Your task to perform on an android device: Clear the cart on target. Search for macbook pro on target, select the first entry, add it to the cart, then select checkout. Image 0: 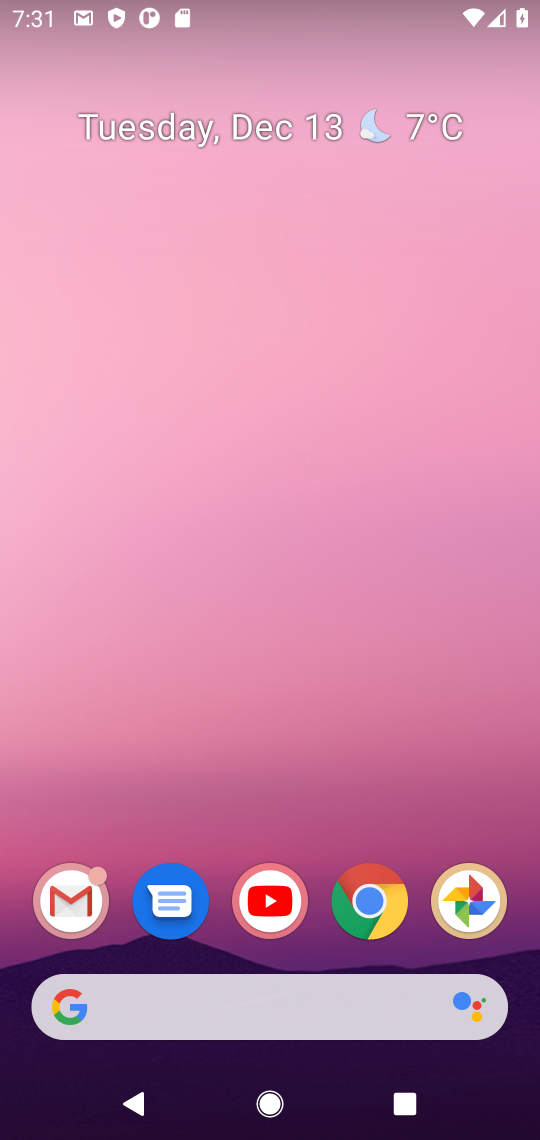
Step 0: click (364, 899)
Your task to perform on an android device: Clear the cart on target. Search for macbook pro on target, select the first entry, add it to the cart, then select checkout. Image 1: 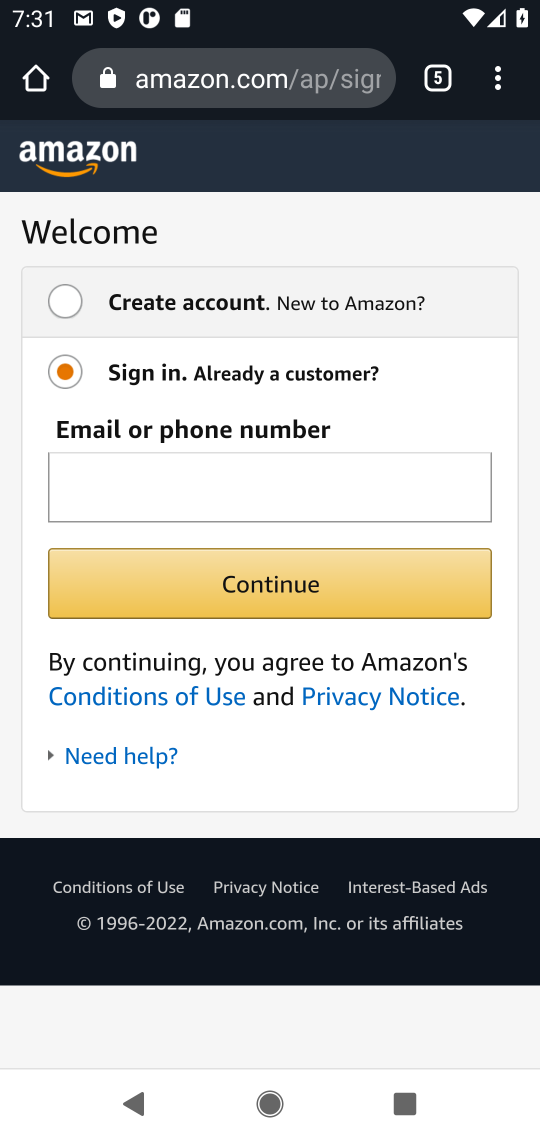
Step 1: click (439, 79)
Your task to perform on an android device: Clear the cart on target. Search for macbook pro on target, select the first entry, add it to the cart, then select checkout. Image 2: 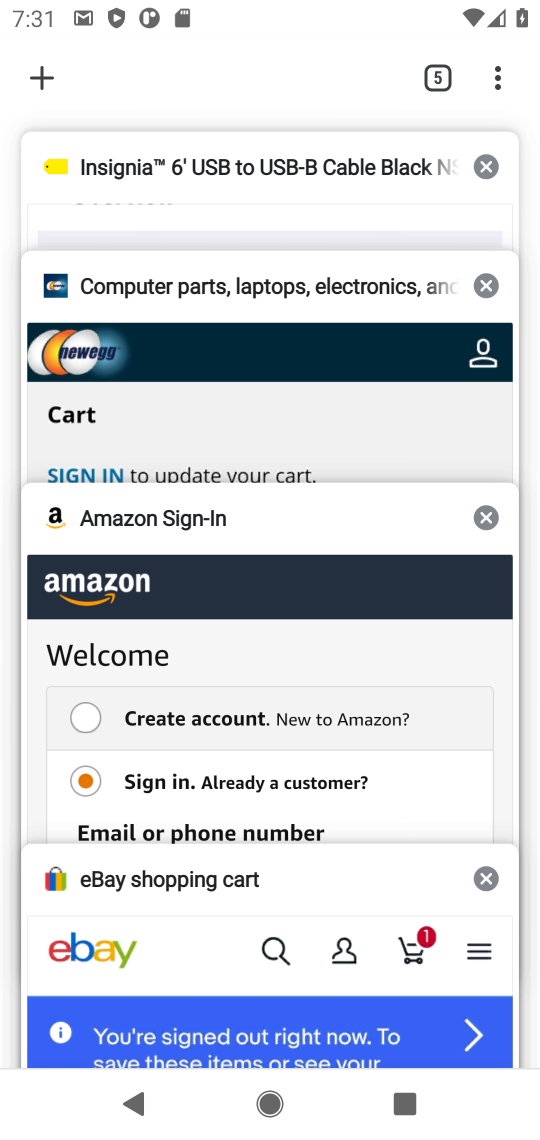
Step 2: click (433, 77)
Your task to perform on an android device: Clear the cart on target. Search for macbook pro on target, select the first entry, add it to the cart, then select checkout. Image 3: 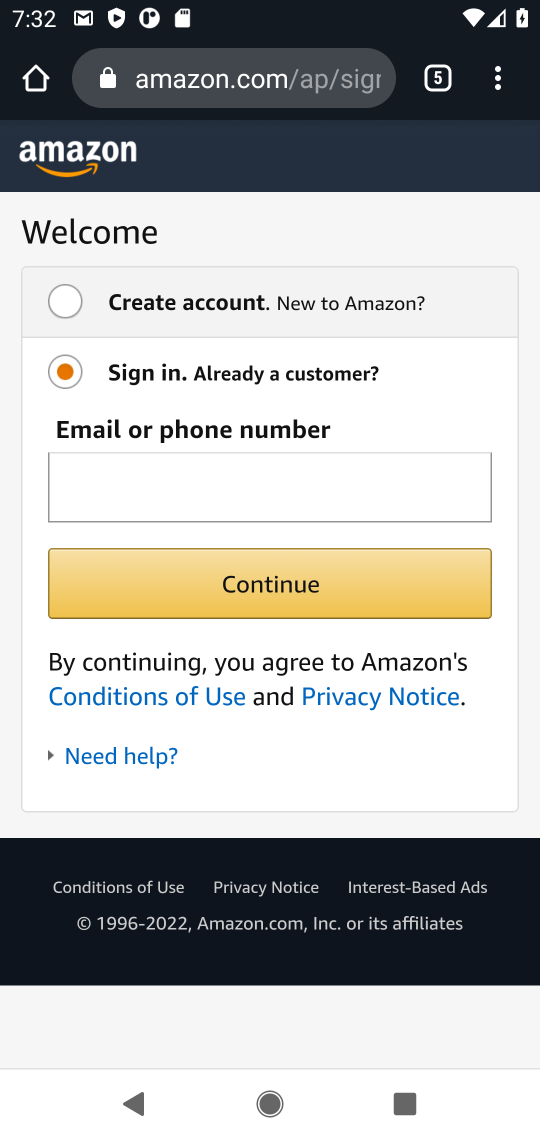
Step 3: click (443, 70)
Your task to perform on an android device: Clear the cart on target. Search for macbook pro on target, select the first entry, add it to the cart, then select checkout. Image 4: 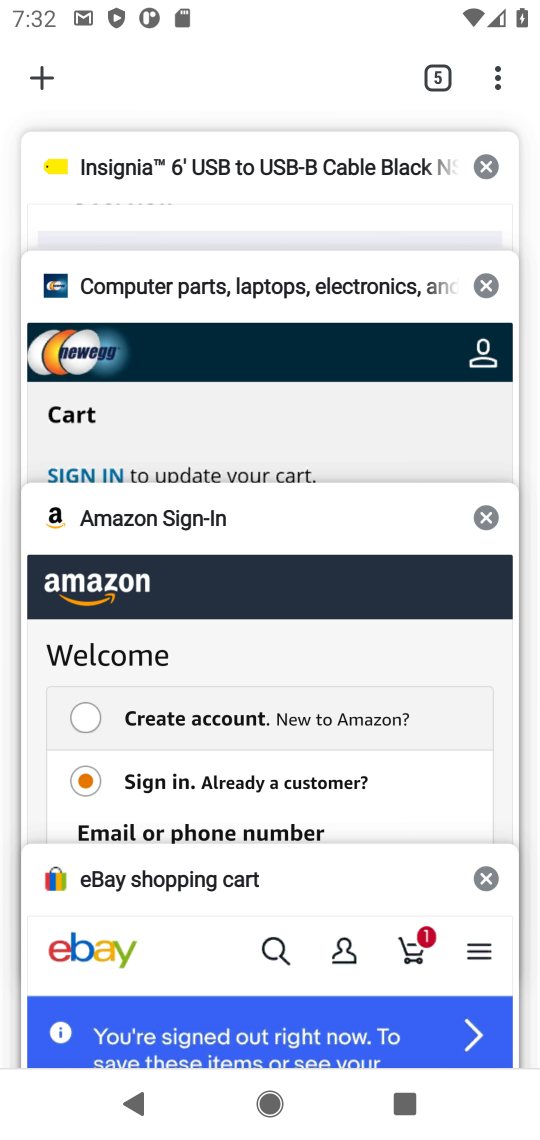
Step 4: click (44, 75)
Your task to perform on an android device: Clear the cart on target. Search for macbook pro on target, select the first entry, add it to the cart, then select checkout. Image 5: 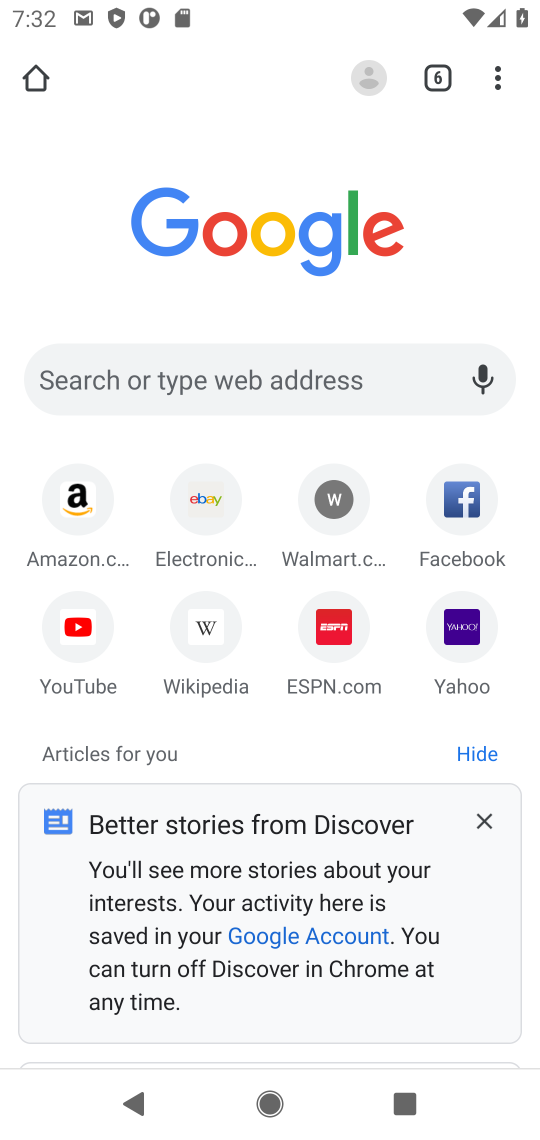
Step 5: click (285, 375)
Your task to perform on an android device: Clear the cart on target. Search for macbook pro on target, select the first entry, add it to the cart, then select checkout. Image 6: 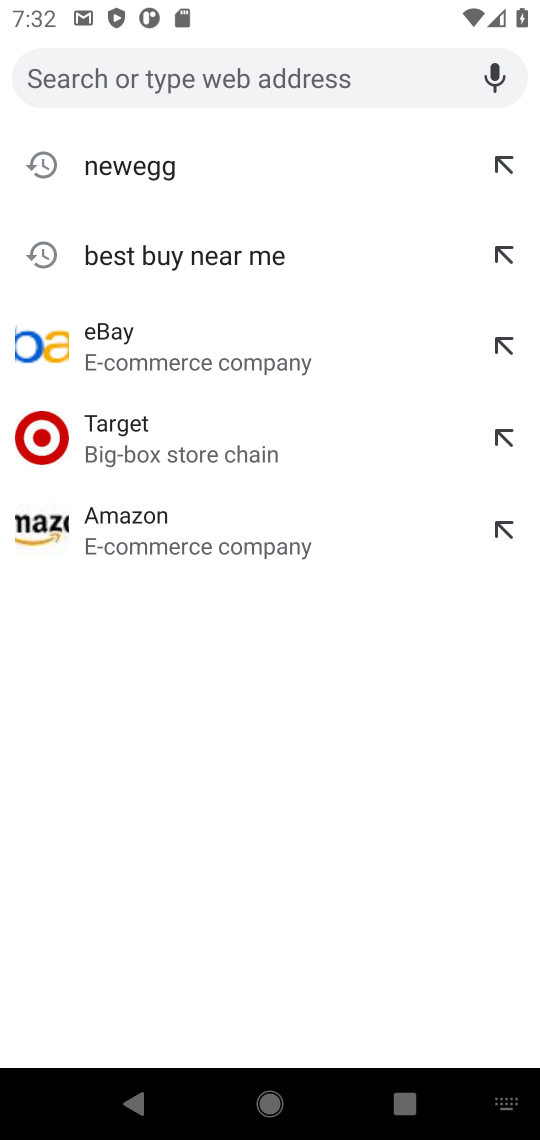
Step 6: click (223, 449)
Your task to perform on an android device: Clear the cart on target. Search for macbook pro on target, select the first entry, add it to the cart, then select checkout. Image 7: 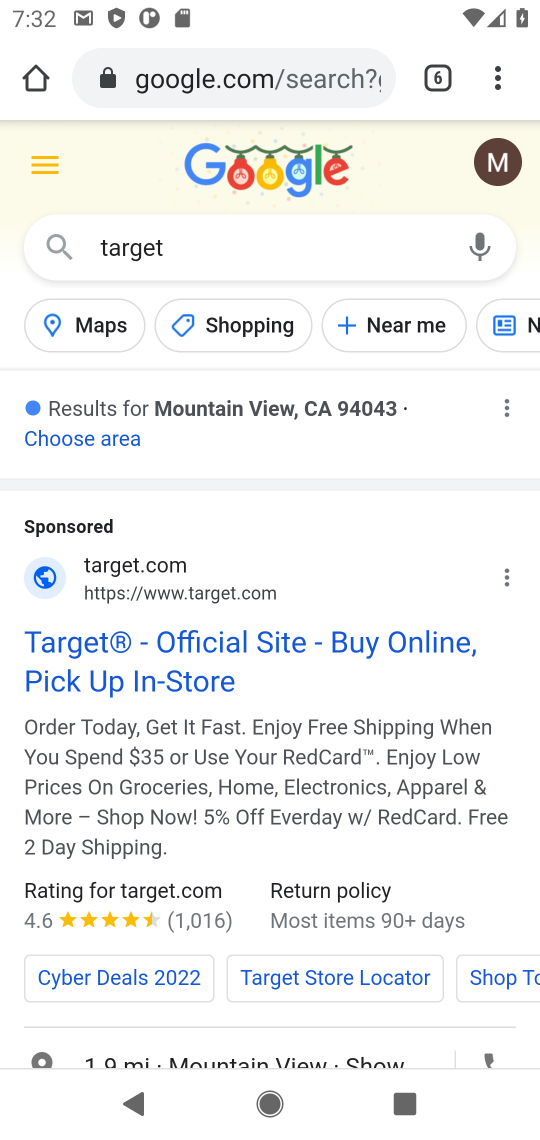
Step 7: click (189, 651)
Your task to perform on an android device: Clear the cart on target. Search for macbook pro on target, select the first entry, add it to the cart, then select checkout. Image 8: 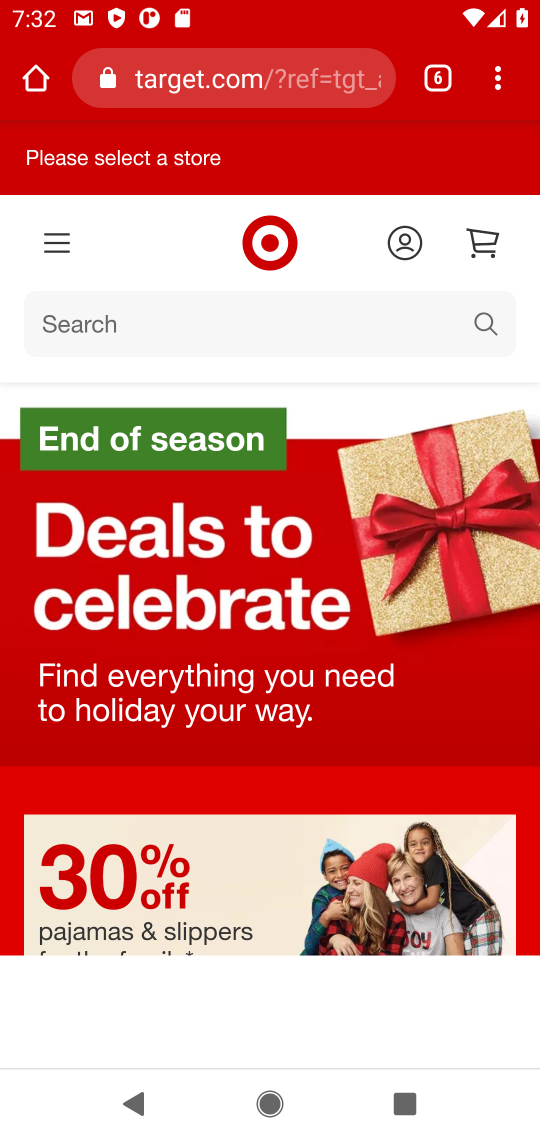
Step 8: click (298, 325)
Your task to perform on an android device: Clear the cart on target. Search for macbook pro on target, select the first entry, add it to the cart, then select checkout. Image 9: 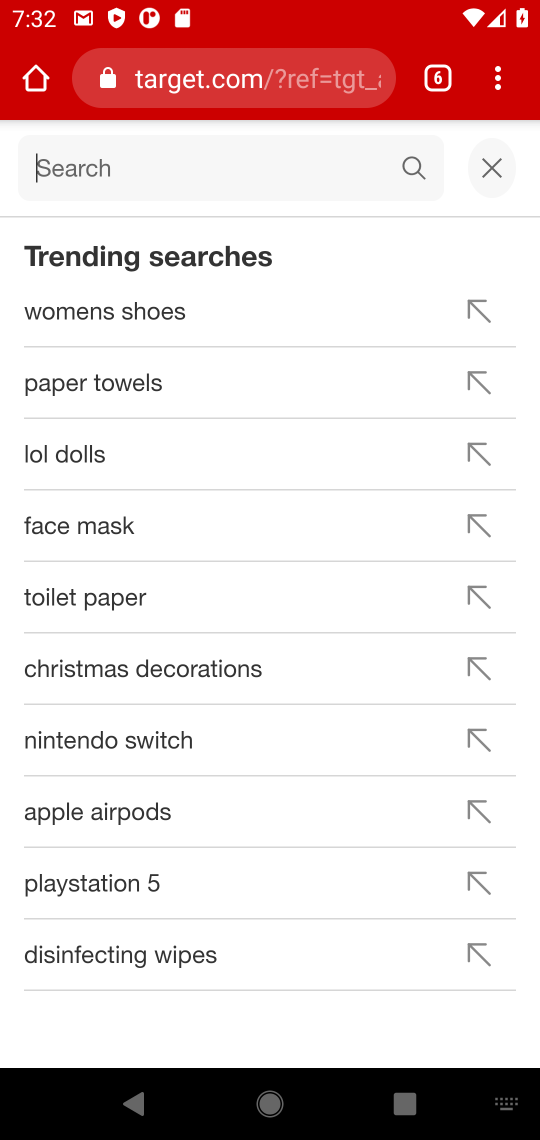
Step 9: type "macbook pro"
Your task to perform on an android device: Clear the cart on target. Search for macbook pro on target, select the first entry, add it to the cart, then select checkout. Image 10: 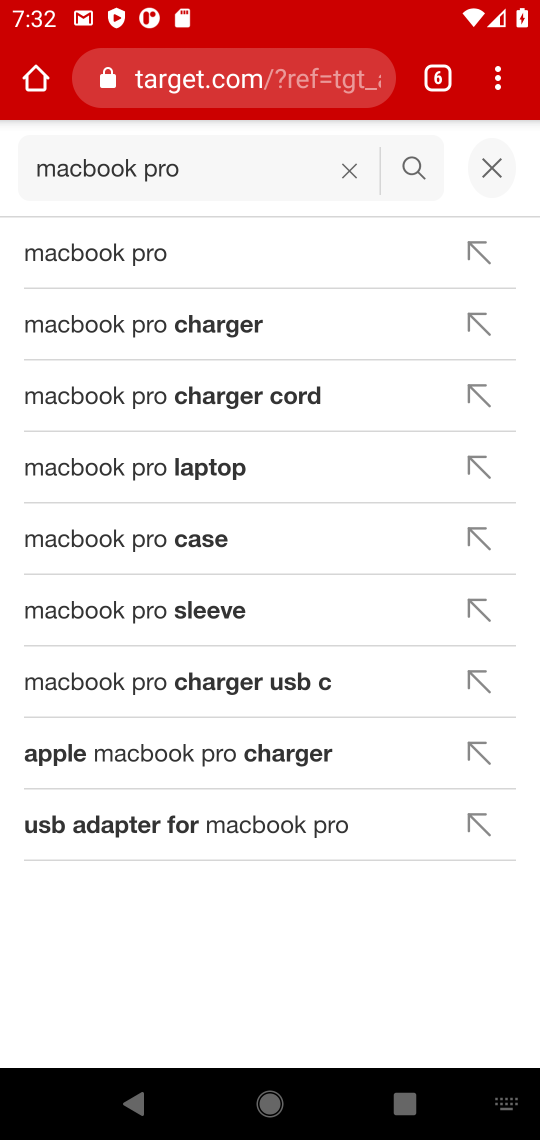
Step 10: click (68, 251)
Your task to perform on an android device: Clear the cart on target. Search for macbook pro on target, select the first entry, add it to the cart, then select checkout. Image 11: 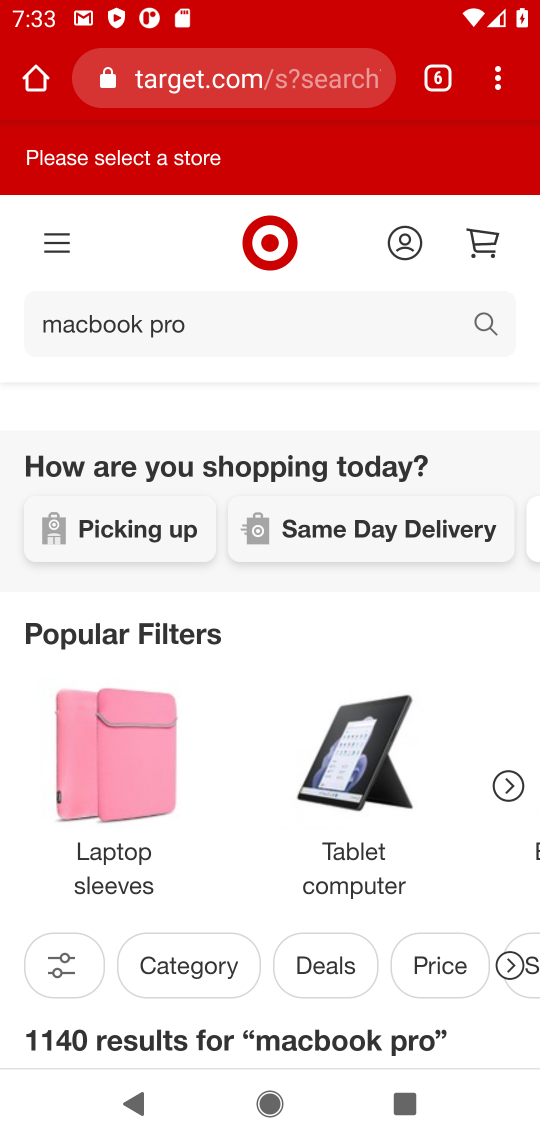
Step 11: drag from (200, 907) to (279, 347)
Your task to perform on an android device: Clear the cart on target. Search for macbook pro on target, select the first entry, add it to the cart, then select checkout. Image 12: 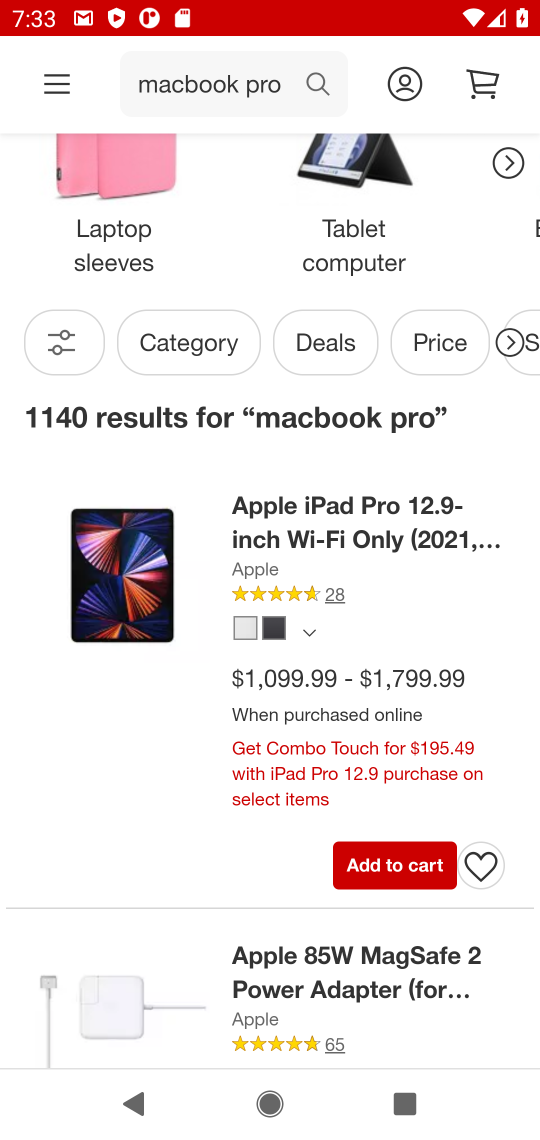
Step 12: drag from (240, 849) to (355, 248)
Your task to perform on an android device: Clear the cart on target. Search for macbook pro on target, select the first entry, add it to the cart, then select checkout. Image 13: 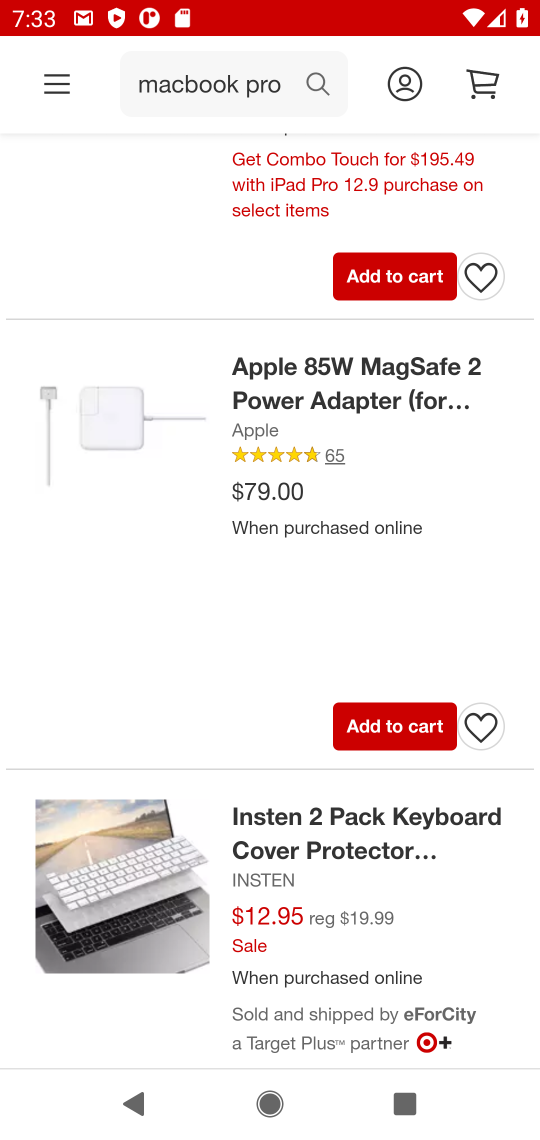
Step 13: drag from (248, 699) to (361, 139)
Your task to perform on an android device: Clear the cart on target. Search for macbook pro on target, select the first entry, add it to the cart, then select checkout. Image 14: 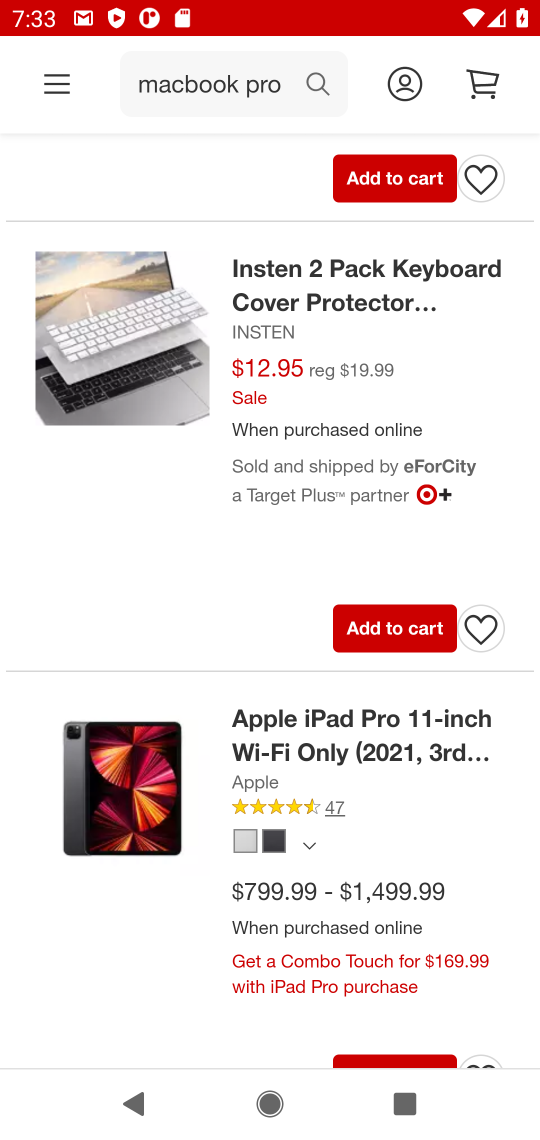
Step 14: drag from (209, 885) to (299, 317)
Your task to perform on an android device: Clear the cart on target. Search for macbook pro on target, select the first entry, add it to the cart, then select checkout. Image 15: 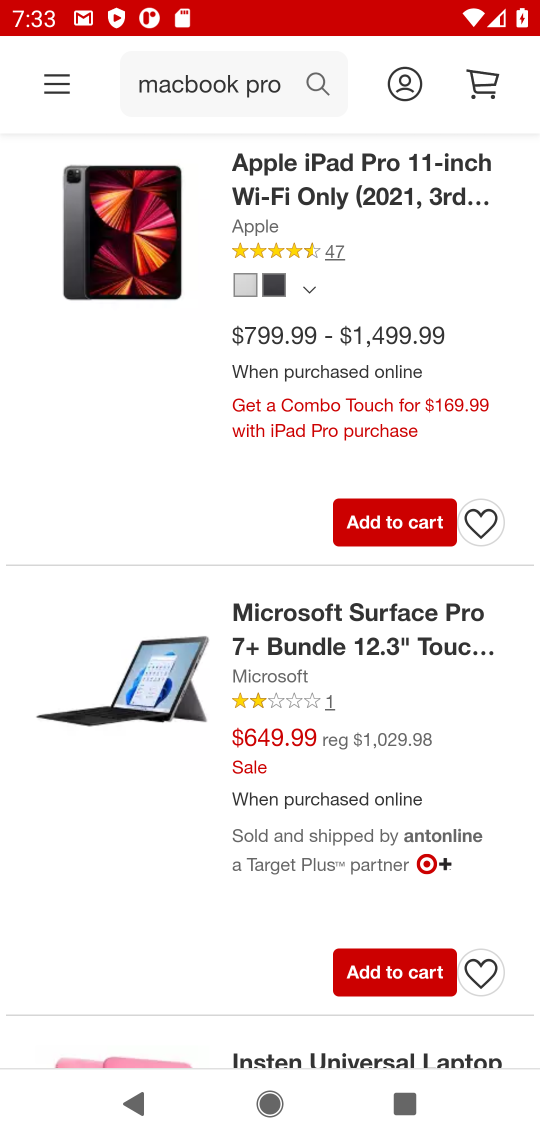
Step 15: drag from (218, 917) to (275, 379)
Your task to perform on an android device: Clear the cart on target. Search for macbook pro on target, select the first entry, add it to the cart, then select checkout. Image 16: 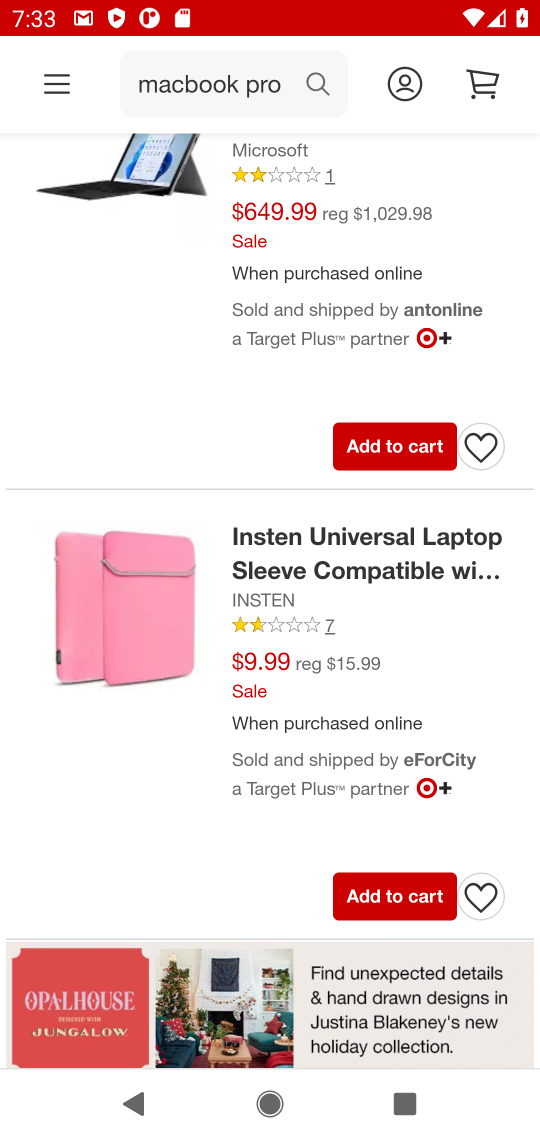
Step 16: drag from (176, 807) to (309, 295)
Your task to perform on an android device: Clear the cart on target. Search for macbook pro on target, select the first entry, add it to the cart, then select checkout. Image 17: 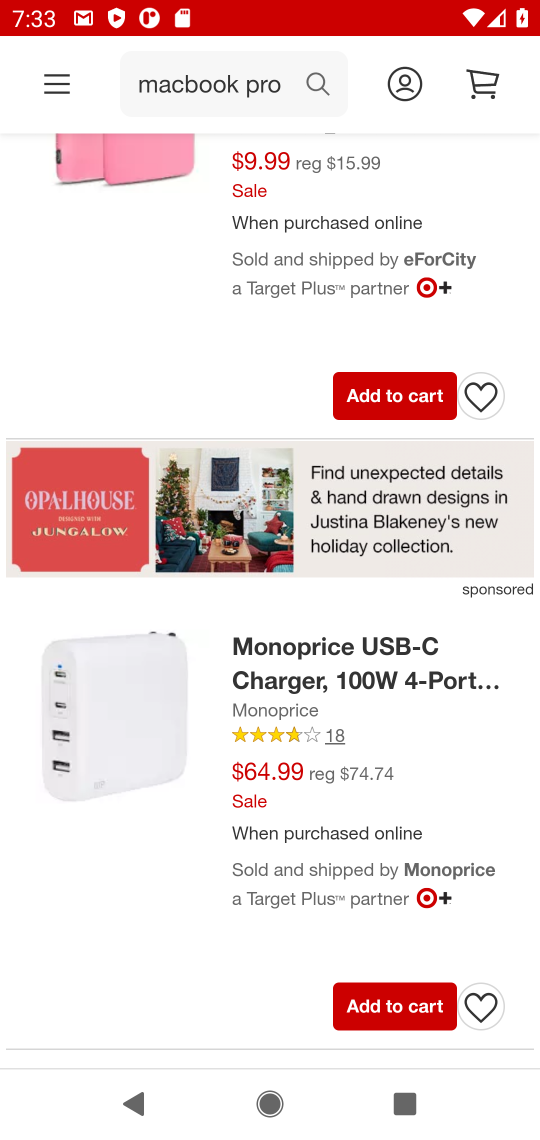
Step 17: drag from (126, 992) to (207, 432)
Your task to perform on an android device: Clear the cart on target. Search for macbook pro on target, select the first entry, add it to the cart, then select checkout. Image 18: 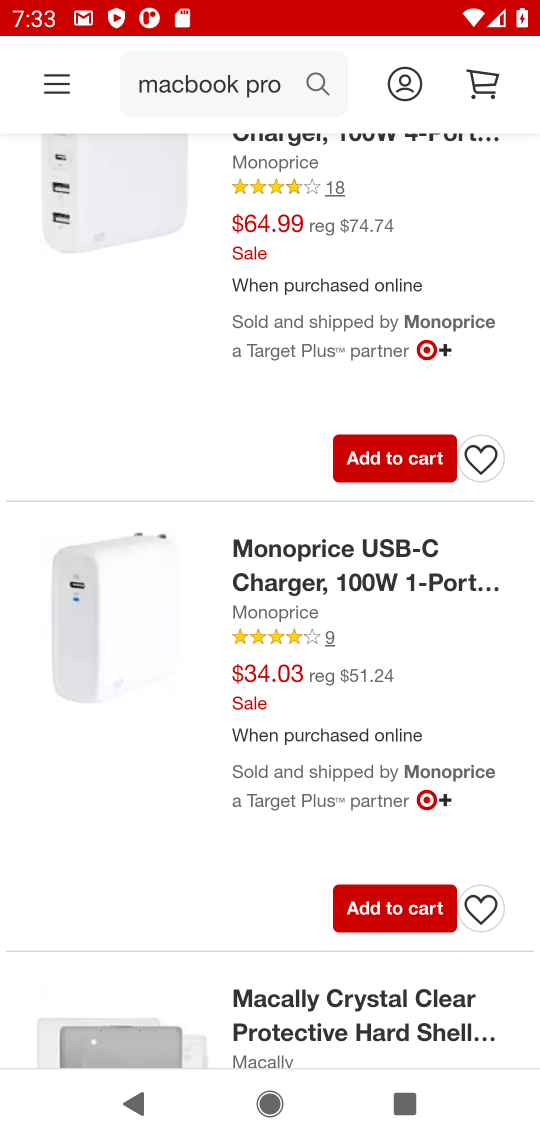
Step 18: drag from (136, 873) to (279, 150)
Your task to perform on an android device: Clear the cart on target. Search for macbook pro on target, select the first entry, add it to the cart, then select checkout. Image 19: 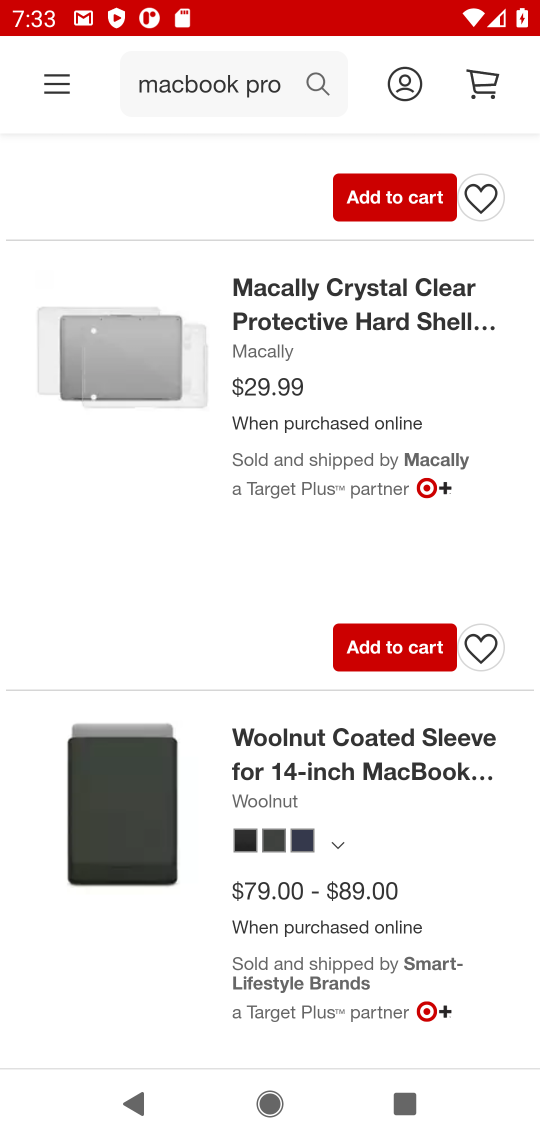
Step 19: drag from (192, 213) to (225, 1095)
Your task to perform on an android device: Clear the cart on target. Search for macbook pro on target, select the first entry, add it to the cart, then select checkout. Image 20: 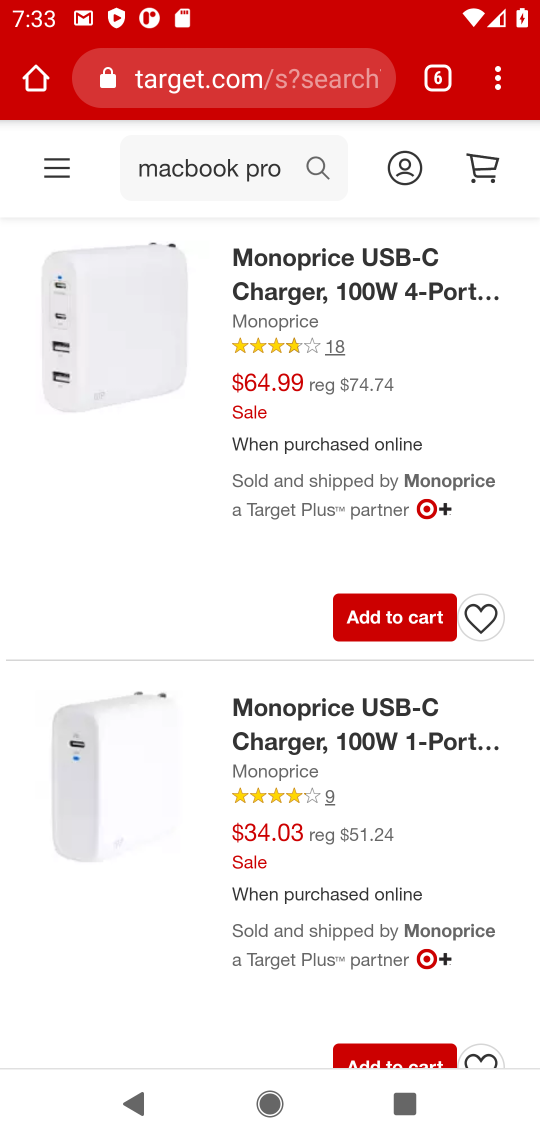
Step 20: click (259, 171)
Your task to perform on an android device: Clear the cart on target. Search for macbook pro on target, select the first entry, add it to the cart, then select checkout. Image 21: 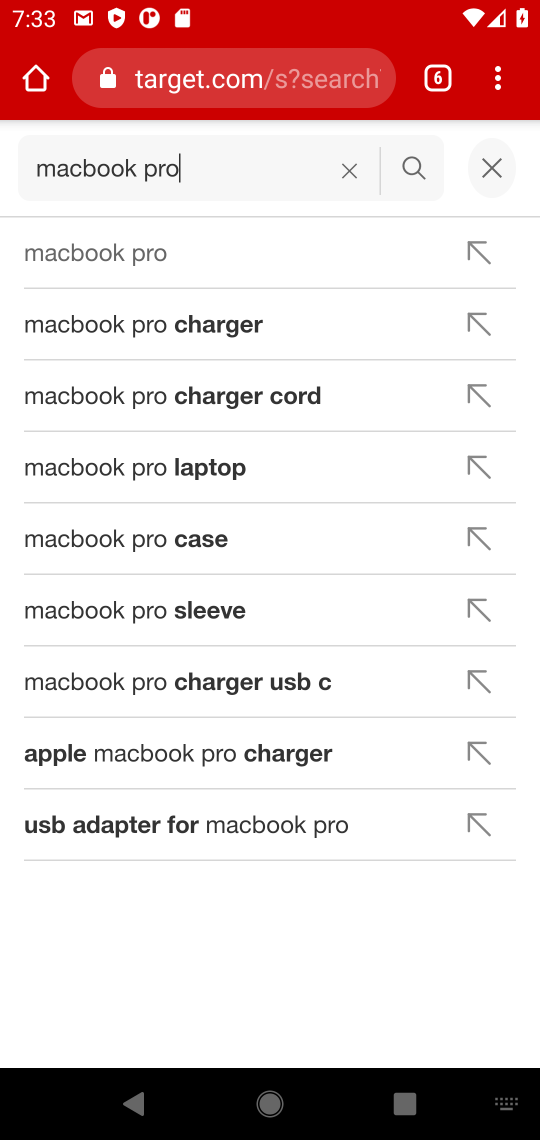
Step 21: click (115, 252)
Your task to perform on an android device: Clear the cart on target. Search for macbook pro on target, select the first entry, add it to the cart, then select checkout. Image 22: 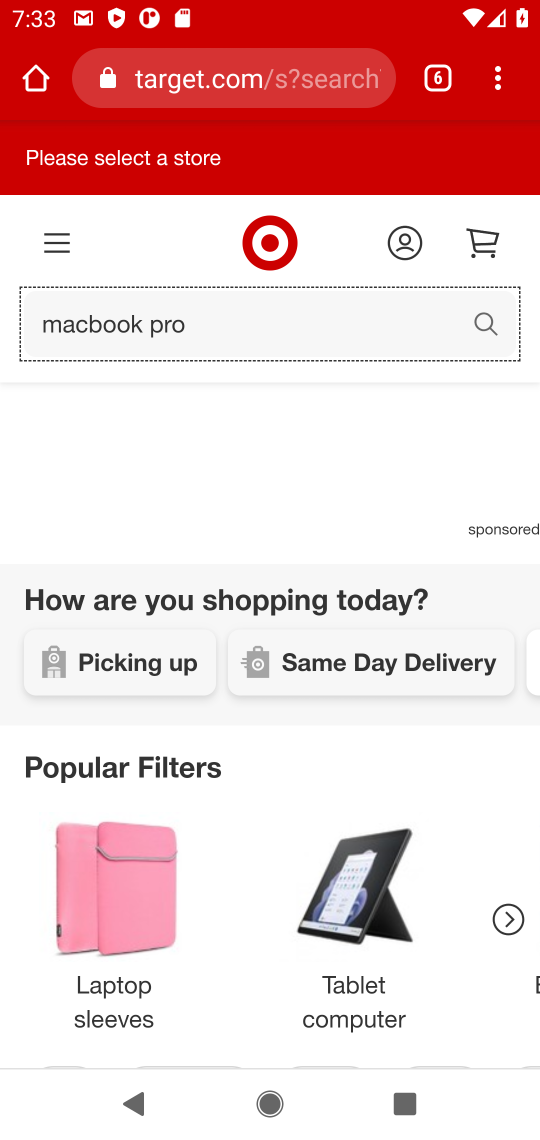
Step 22: drag from (368, 922) to (16, 984)
Your task to perform on an android device: Clear the cart on target. Search for macbook pro on target, select the first entry, add it to the cart, then select checkout. Image 23: 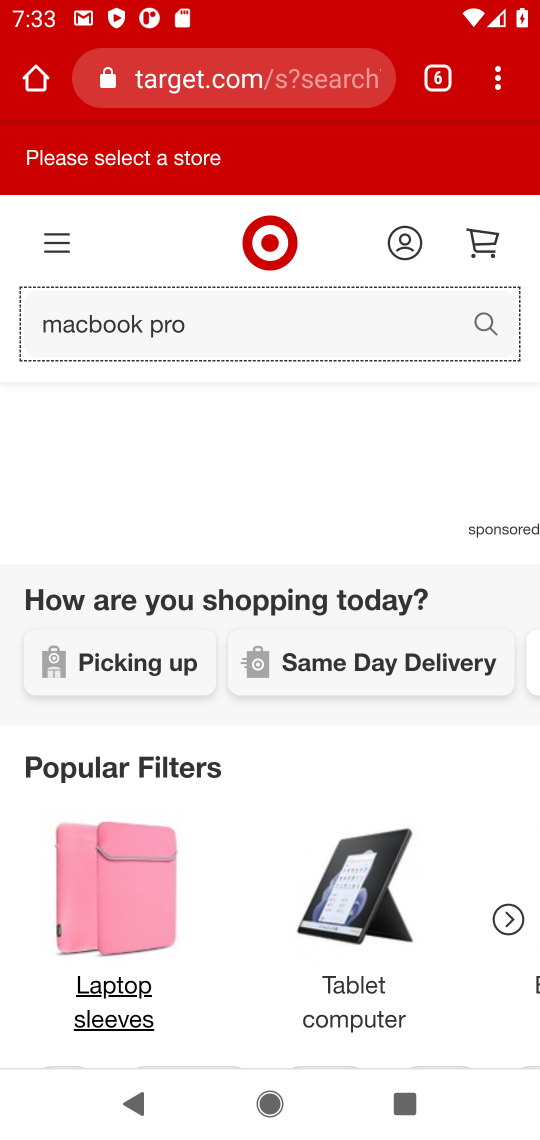
Step 23: drag from (413, 891) to (20, 1042)
Your task to perform on an android device: Clear the cart on target. Search for macbook pro on target, select the first entry, add it to the cart, then select checkout. Image 24: 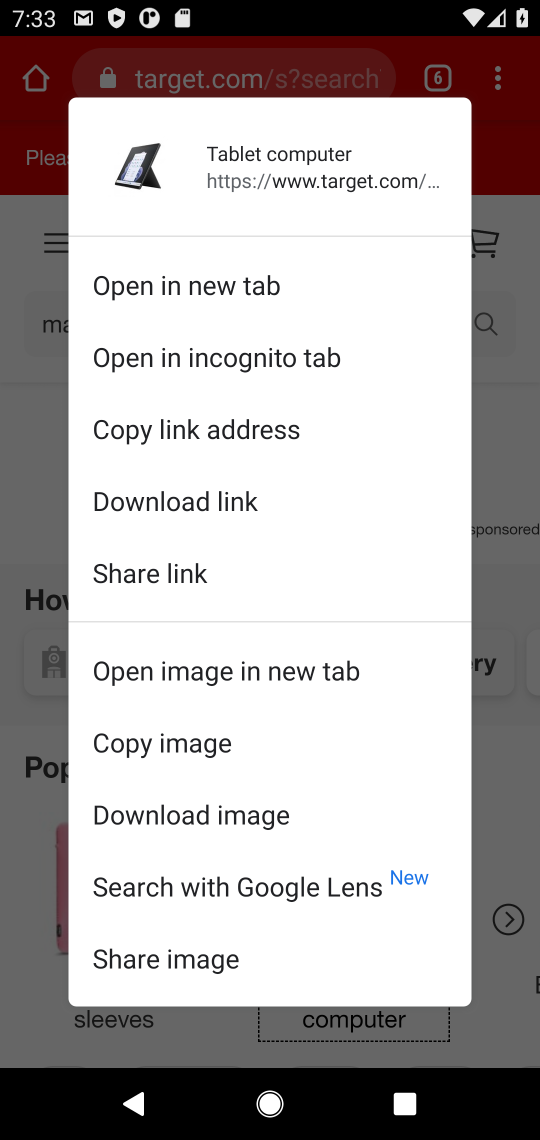
Step 24: click (508, 796)
Your task to perform on an android device: Clear the cart on target. Search for macbook pro on target, select the first entry, add it to the cart, then select checkout. Image 25: 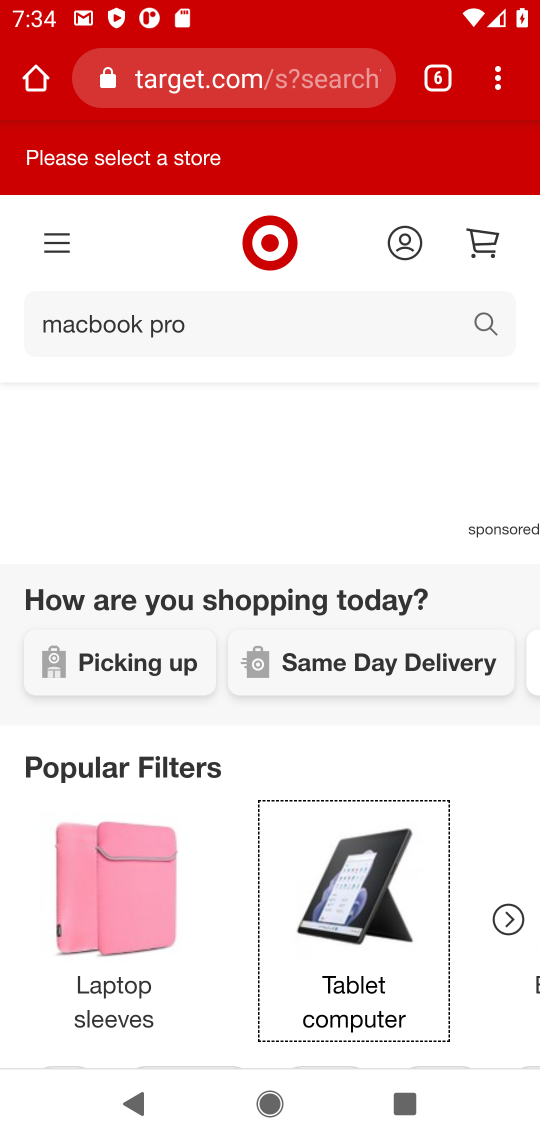
Step 25: task complete